Your task to perform on an android device: change the clock display to analog Image 0: 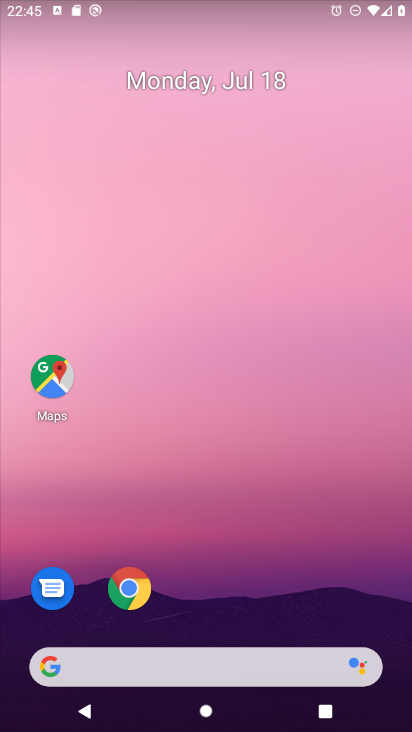
Step 0: drag from (387, 609) to (296, 108)
Your task to perform on an android device: change the clock display to analog Image 1: 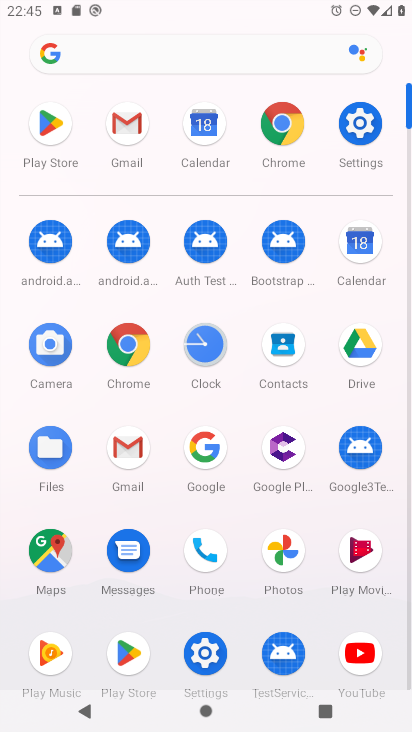
Step 1: click (206, 343)
Your task to perform on an android device: change the clock display to analog Image 2: 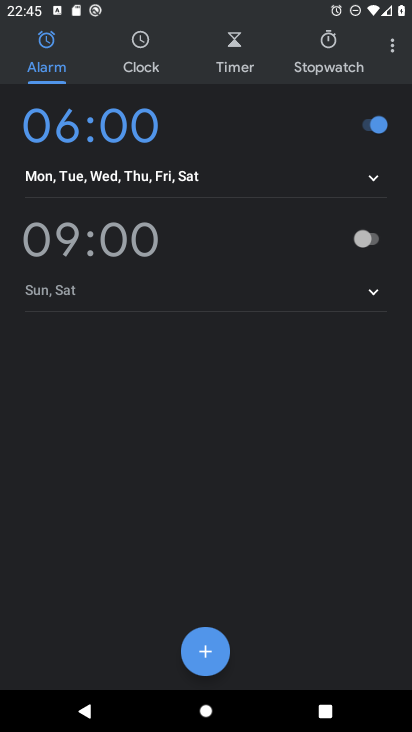
Step 2: click (386, 53)
Your task to perform on an android device: change the clock display to analog Image 3: 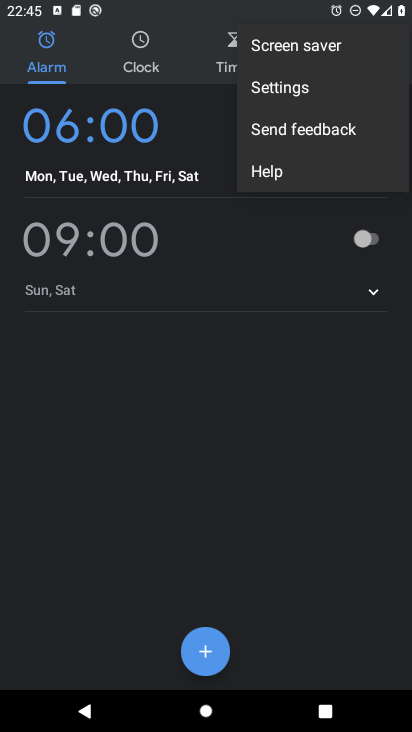
Step 3: click (284, 87)
Your task to perform on an android device: change the clock display to analog Image 4: 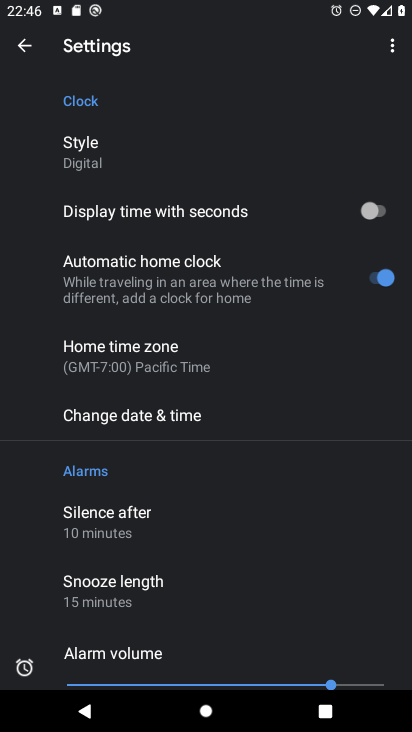
Step 4: click (95, 148)
Your task to perform on an android device: change the clock display to analog Image 5: 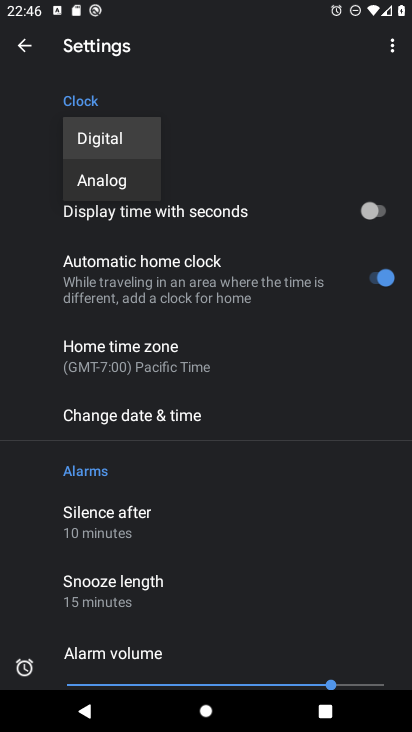
Step 5: click (108, 183)
Your task to perform on an android device: change the clock display to analog Image 6: 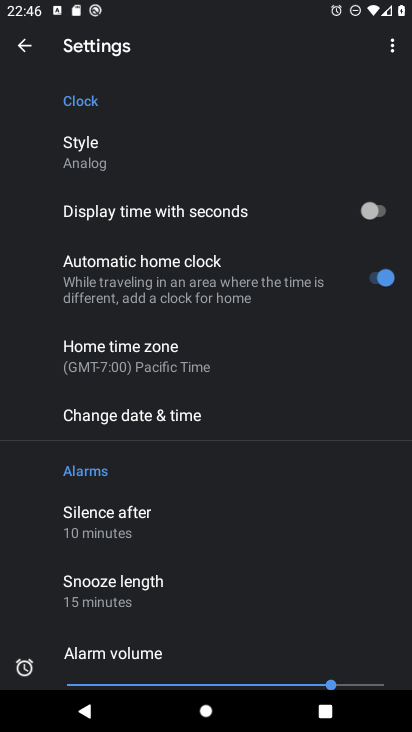
Step 6: task complete